Your task to perform on an android device: turn on wifi Image 0: 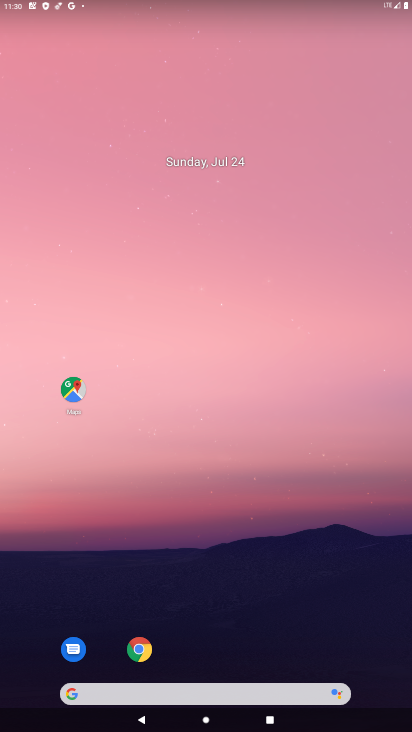
Step 0: drag from (204, 657) to (190, 1)
Your task to perform on an android device: turn on wifi Image 1: 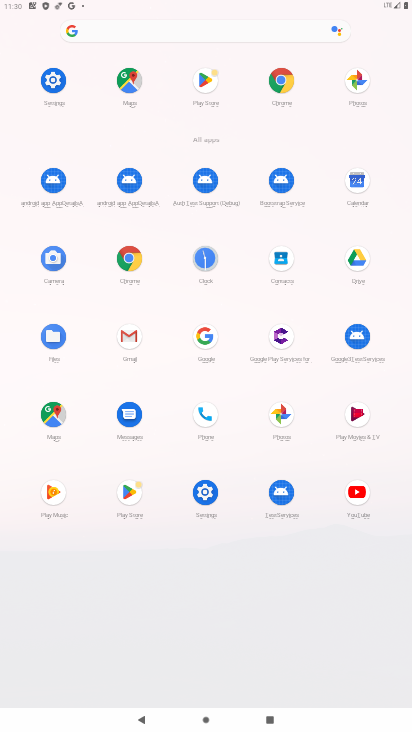
Step 1: drag from (123, 4) to (169, 471)
Your task to perform on an android device: turn on wifi Image 2: 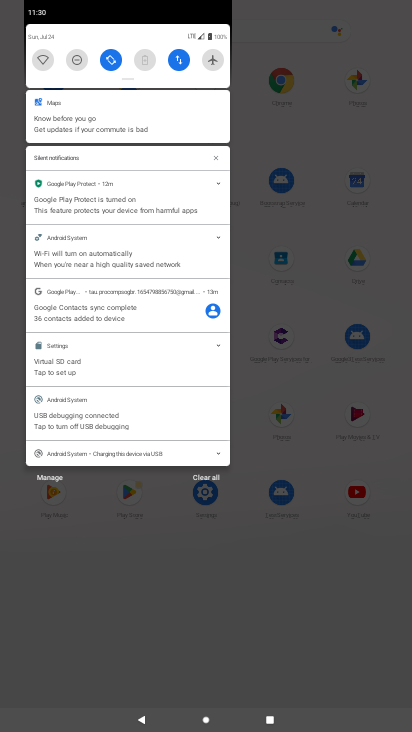
Step 2: click (41, 64)
Your task to perform on an android device: turn on wifi Image 3: 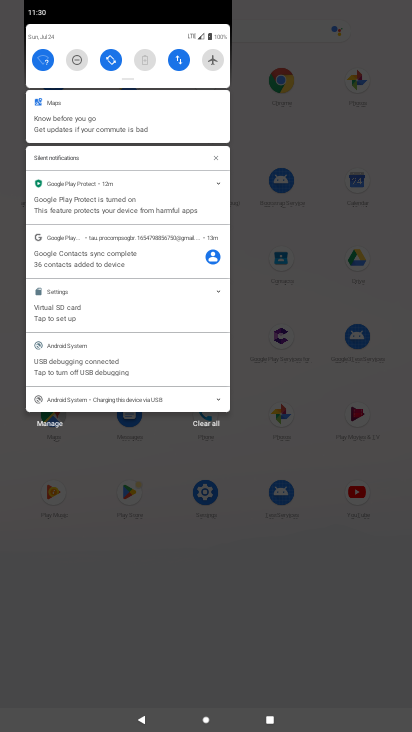
Step 3: task complete